Your task to perform on an android device: Add "macbook pro" to the cart on newegg, then select checkout. Image 0: 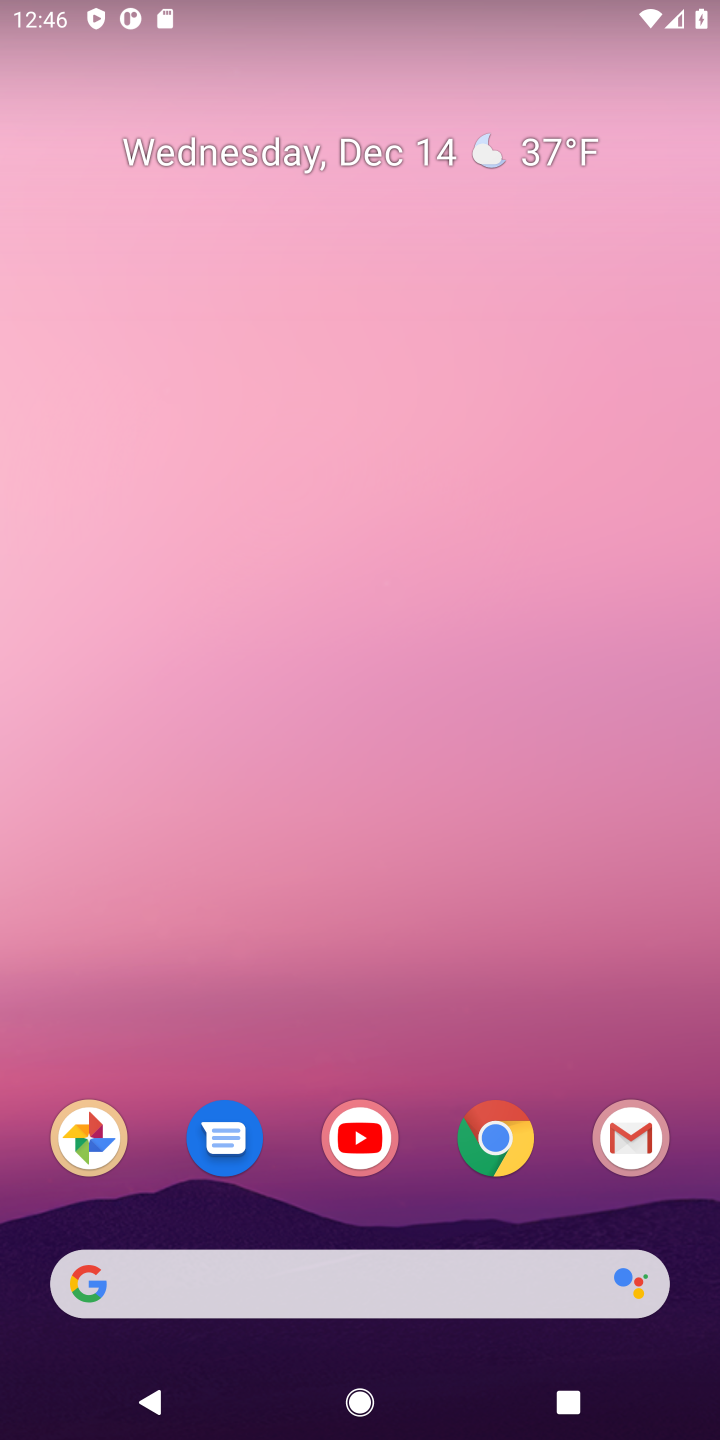
Step 0: click (494, 1139)
Your task to perform on an android device: Add "macbook pro" to the cart on newegg, then select checkout. Image 1: 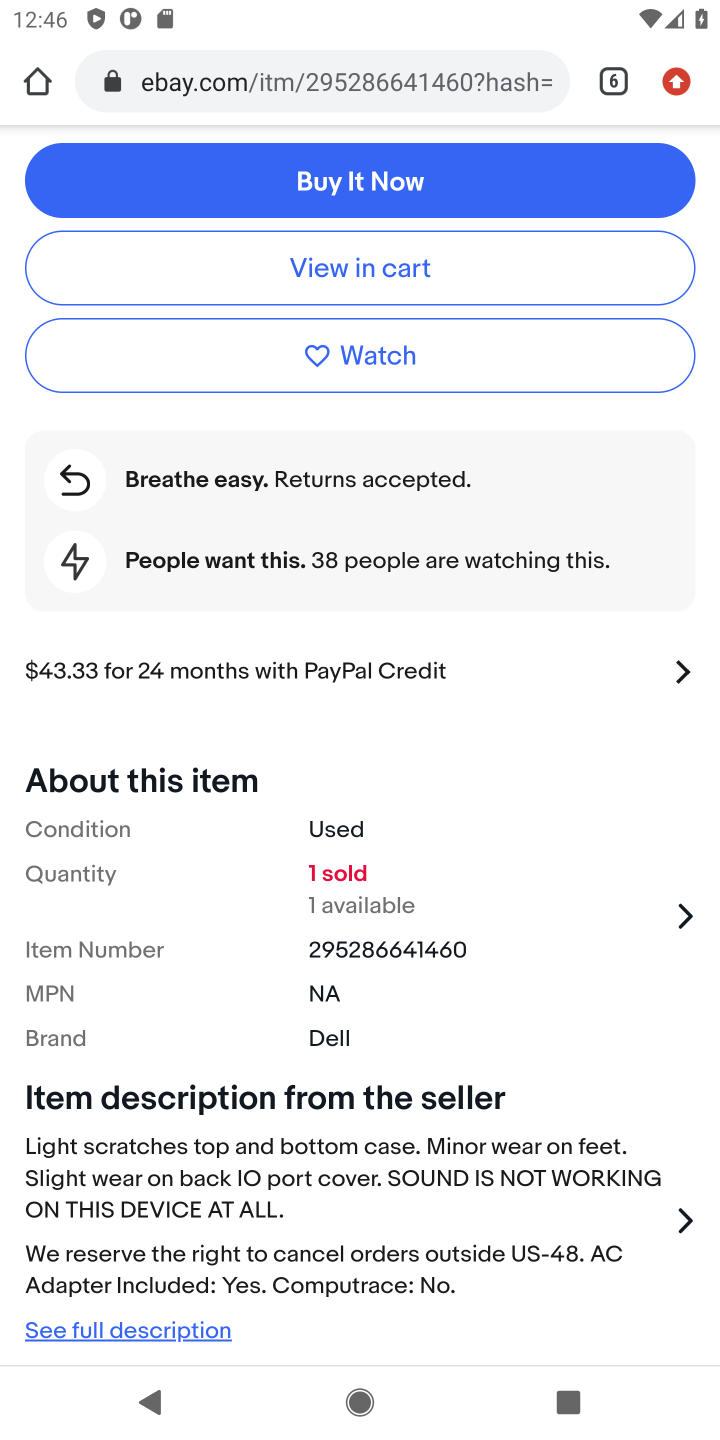
Step 1: click (611, 79)
Your task to perform on an android device: Add "macbook pro" to the cart on newegg, then select checkout. Image 2: 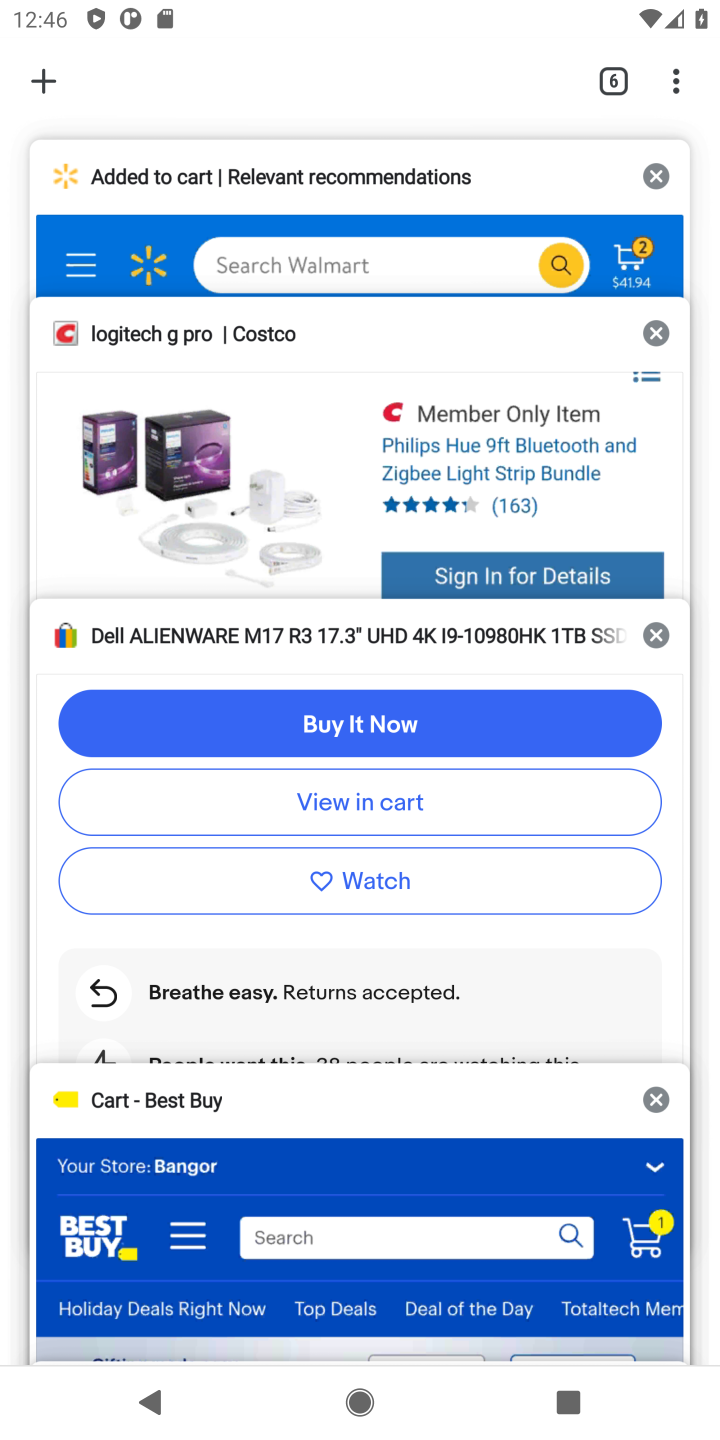
Step 2: click (42, 71)
Your task to perform on an android device: Add "macbook pro" to the cart on newegg, then select checkout. Image 3: 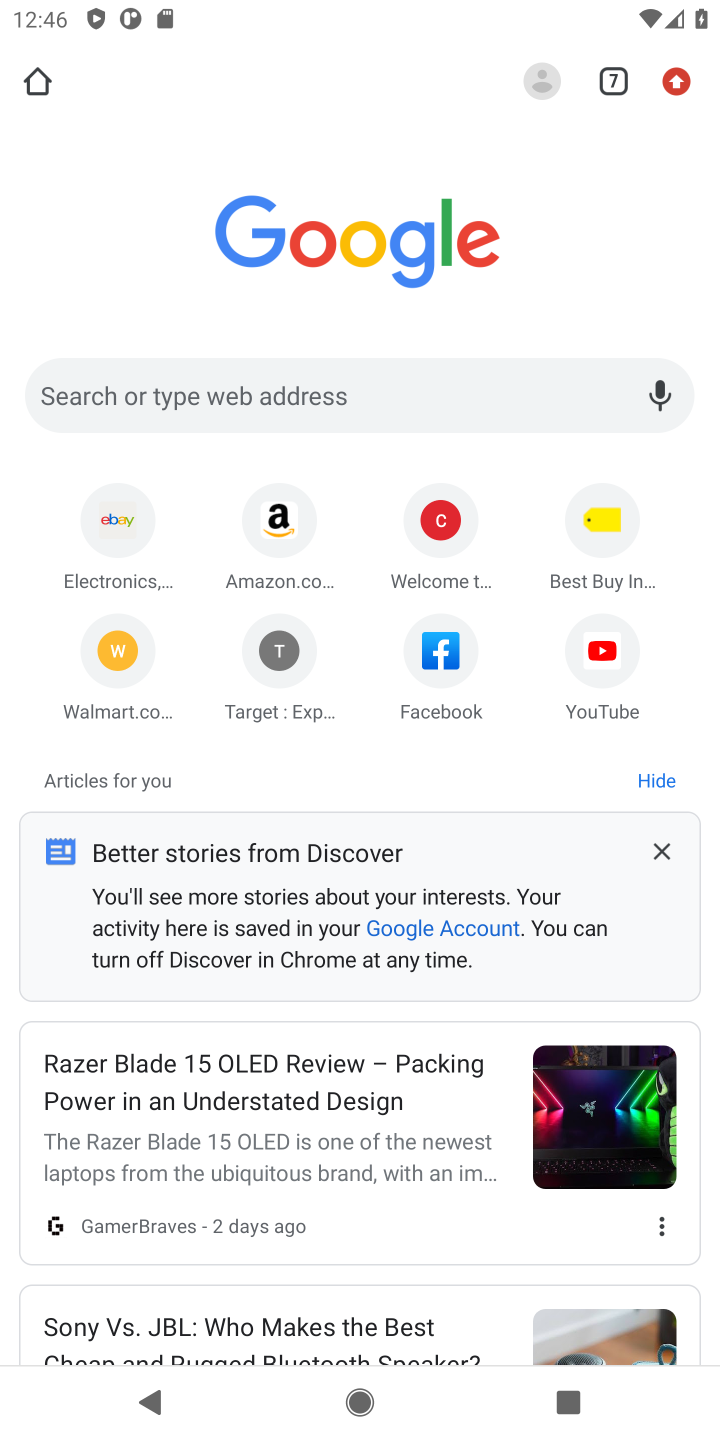
Step 3: click (320, 402)
Your task to perform on an android device: Add "macbook pro" to the cart on newegg, then select checkout. Image 4: 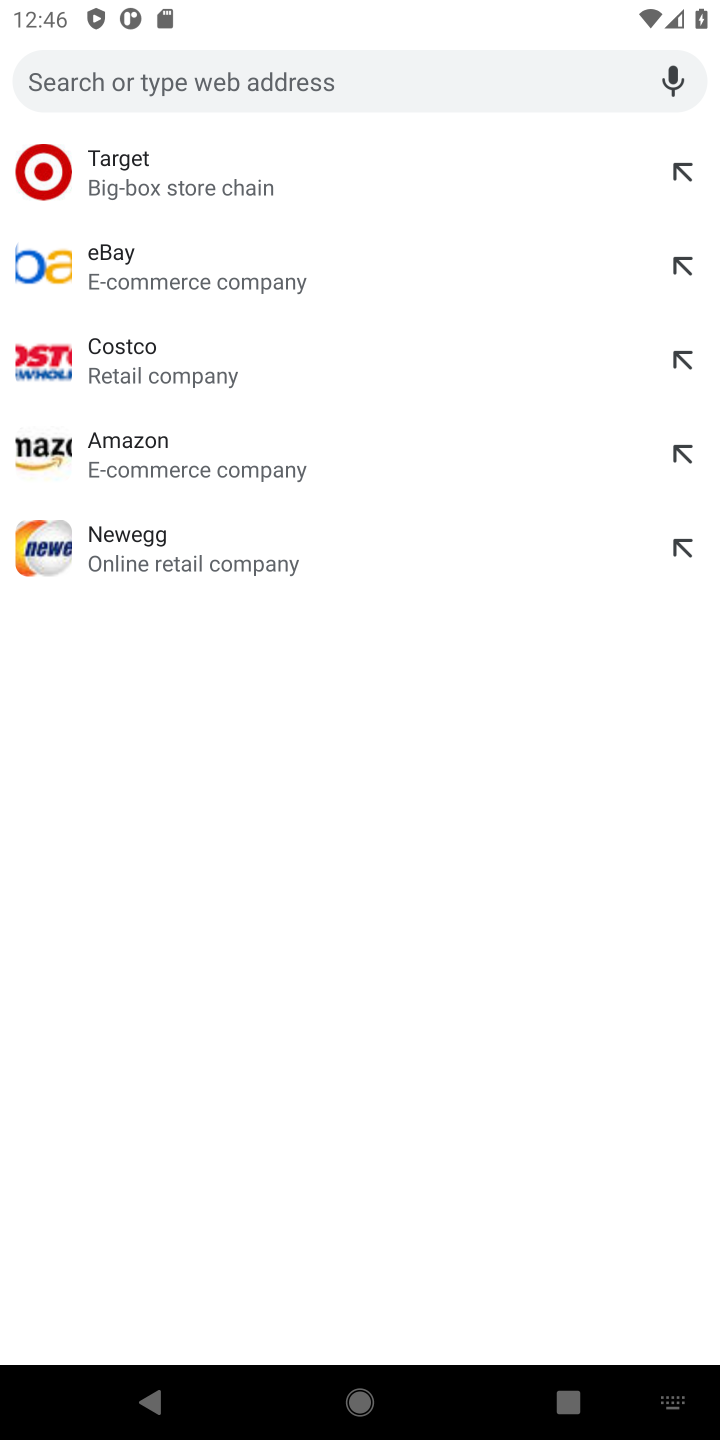
Step 4: click (144, 550)
Your task to perform on an android device: Add "macbook pro" to the cart on newegg, then select checkout. Image 5: 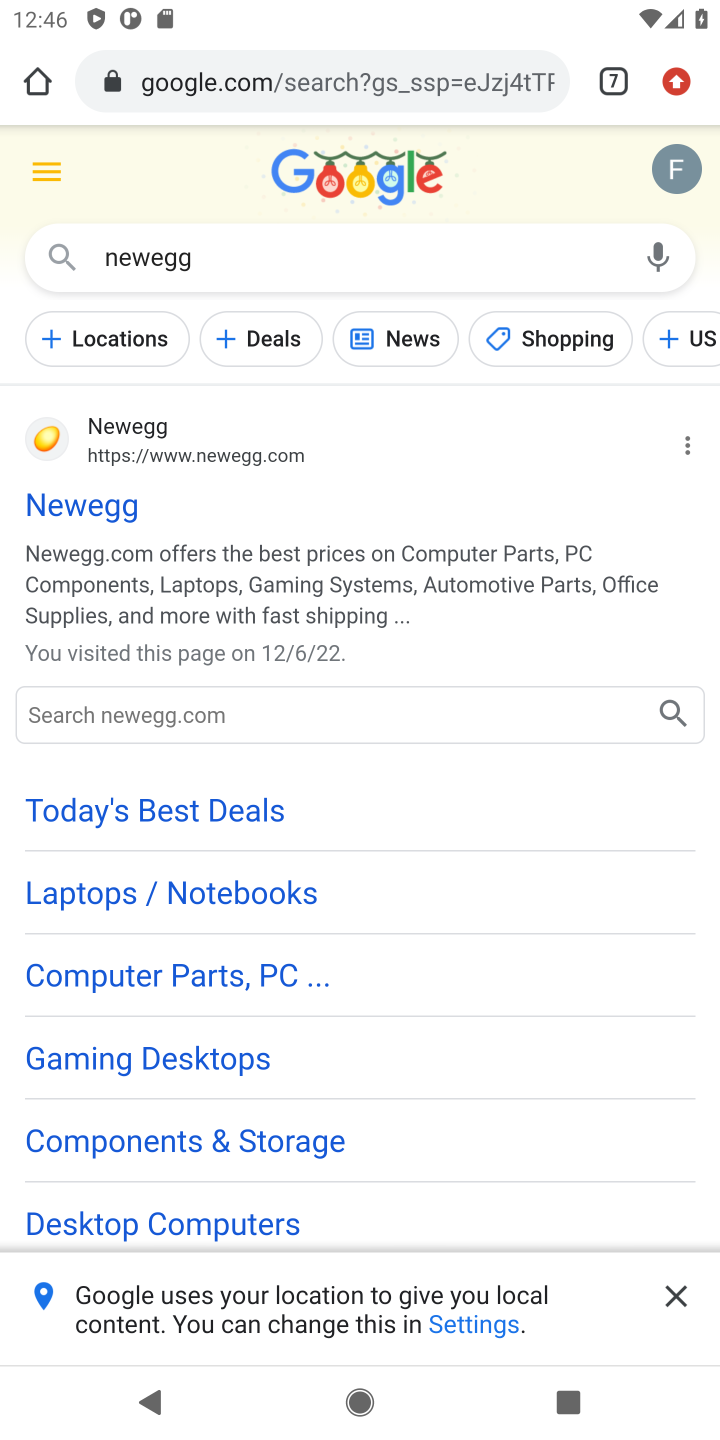
Step 5: click (148, 723)
Your task to perform on an android device: Add "macbook pro" to the cart on newegg, then select checkout. Image 6: 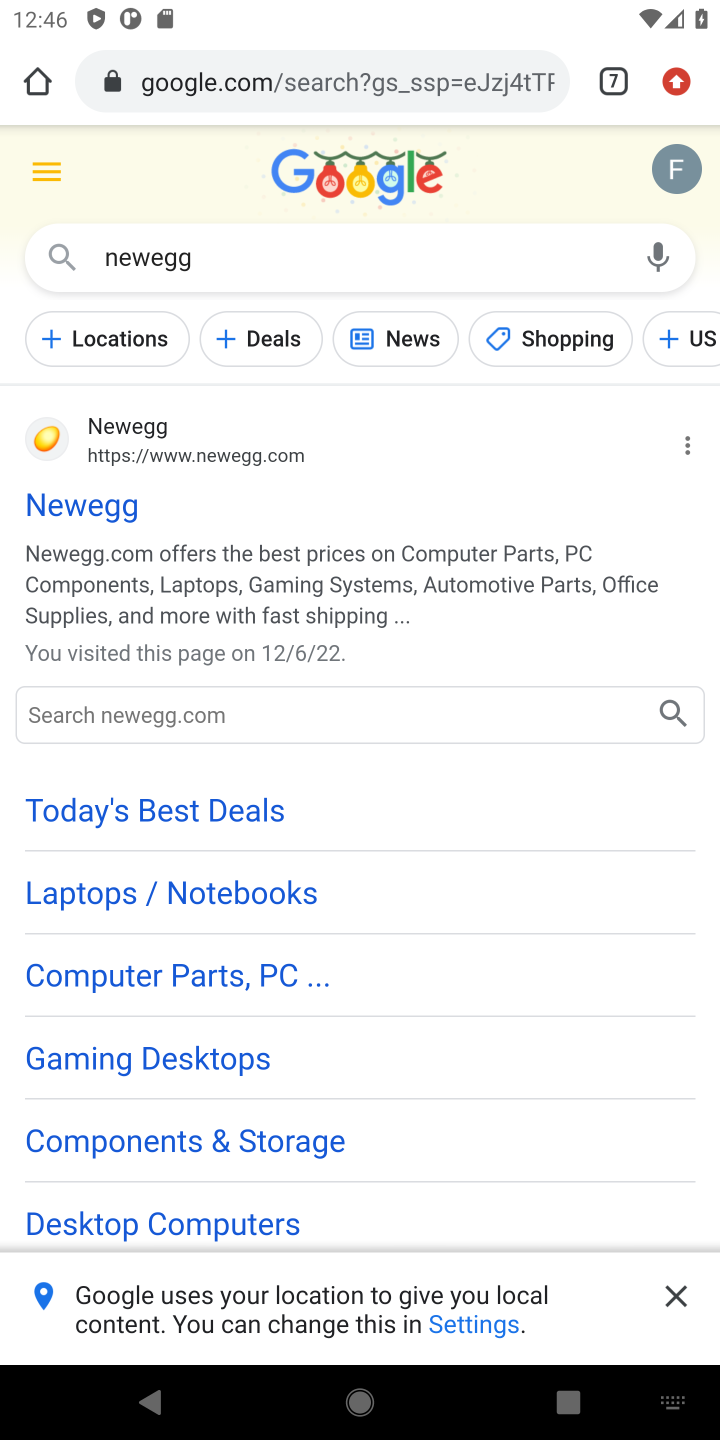
Step 6: type "macbook pro"
Your task to perform on an android device: Add "macbook pro" to the cart on newegg, then select checkout. Image 7: 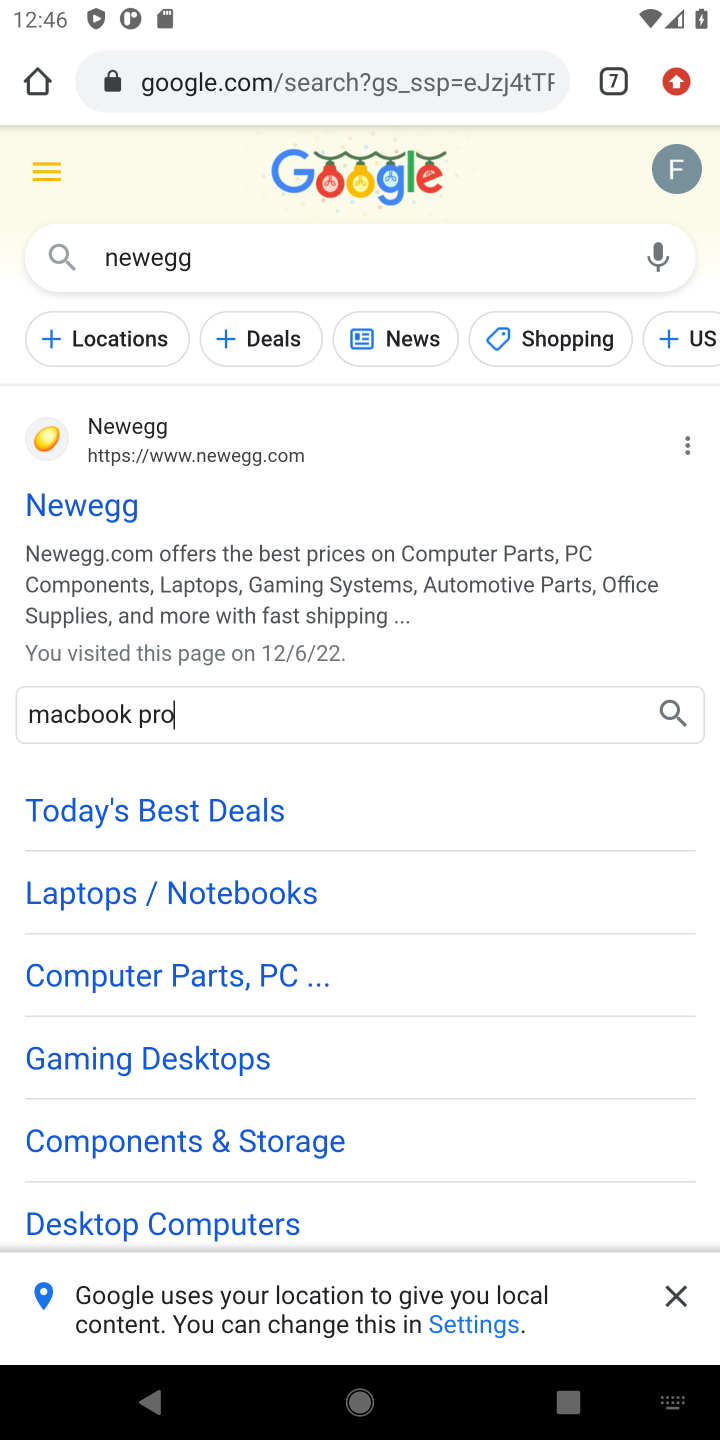
Step 7: click (669, 707)
Your task to perform on an android device: Add "macbook pro" to the cart on newegg, then select checkout. Image 8: 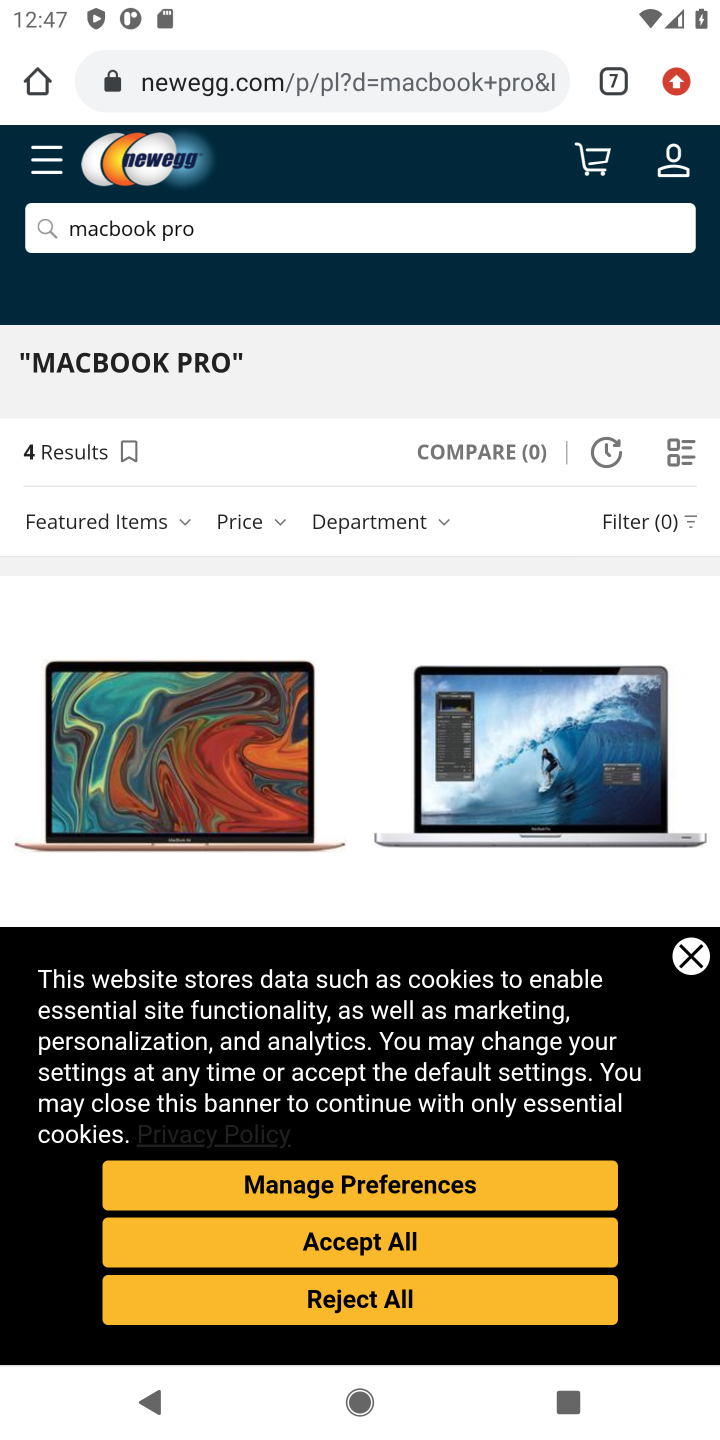
Step 8: click (693, 963)
Your task to perform on an android device: Add "macbook pro" to the cart on newegg, then select checkout. Image 9: 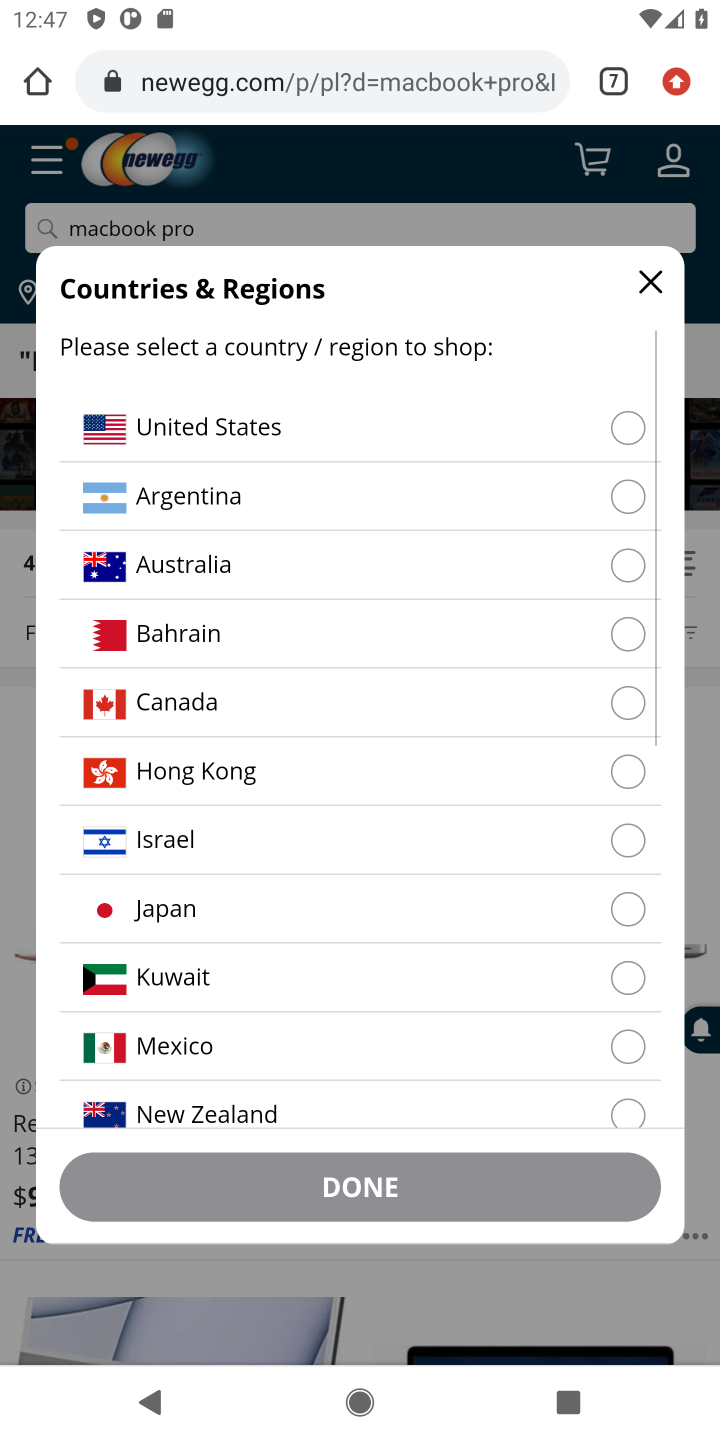
Step 9: click (632, 437)
Your task to perform on an android device: Add "macbook pro" to the cart on newegg, then select checkout. Image 10: 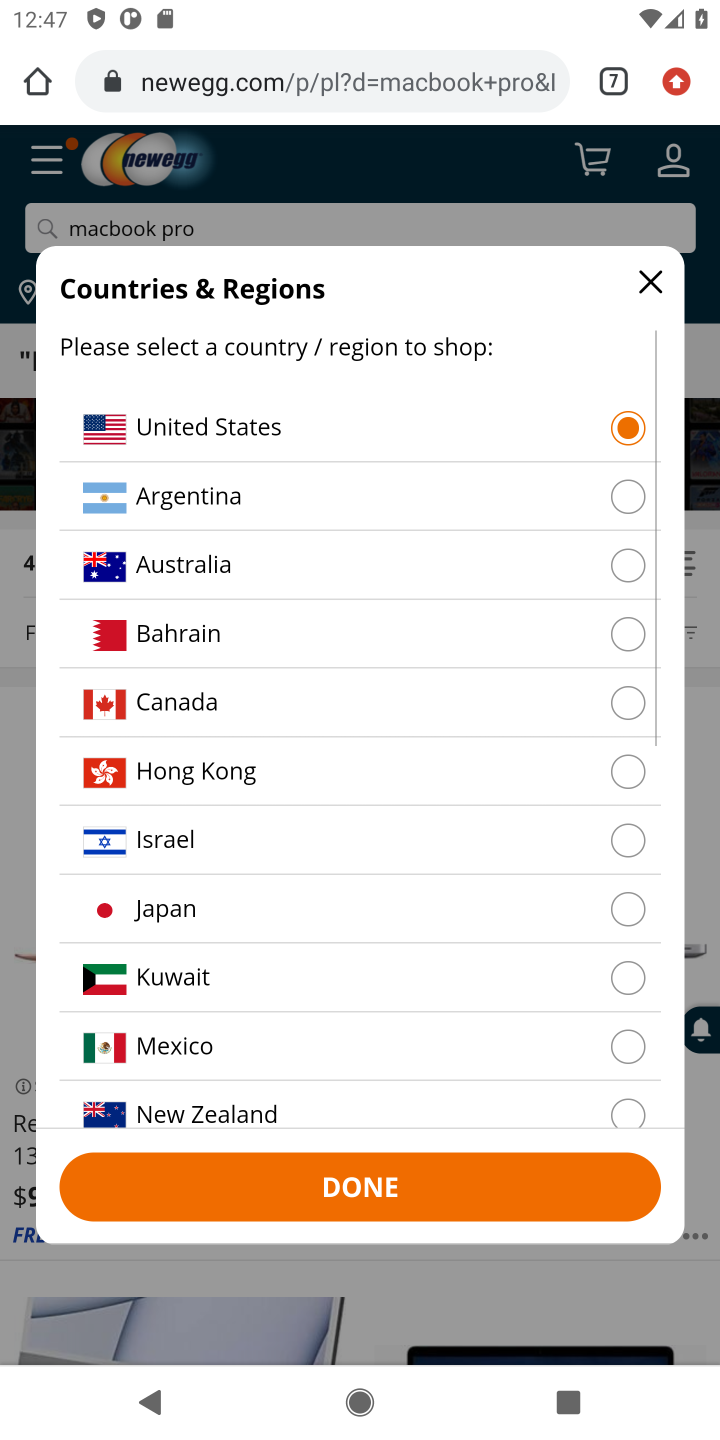
Step 10: click (438, 1205)
Your task to perform on an android device: Add "macbook pro" to the cart on newegg, then select checkout. Image 11: 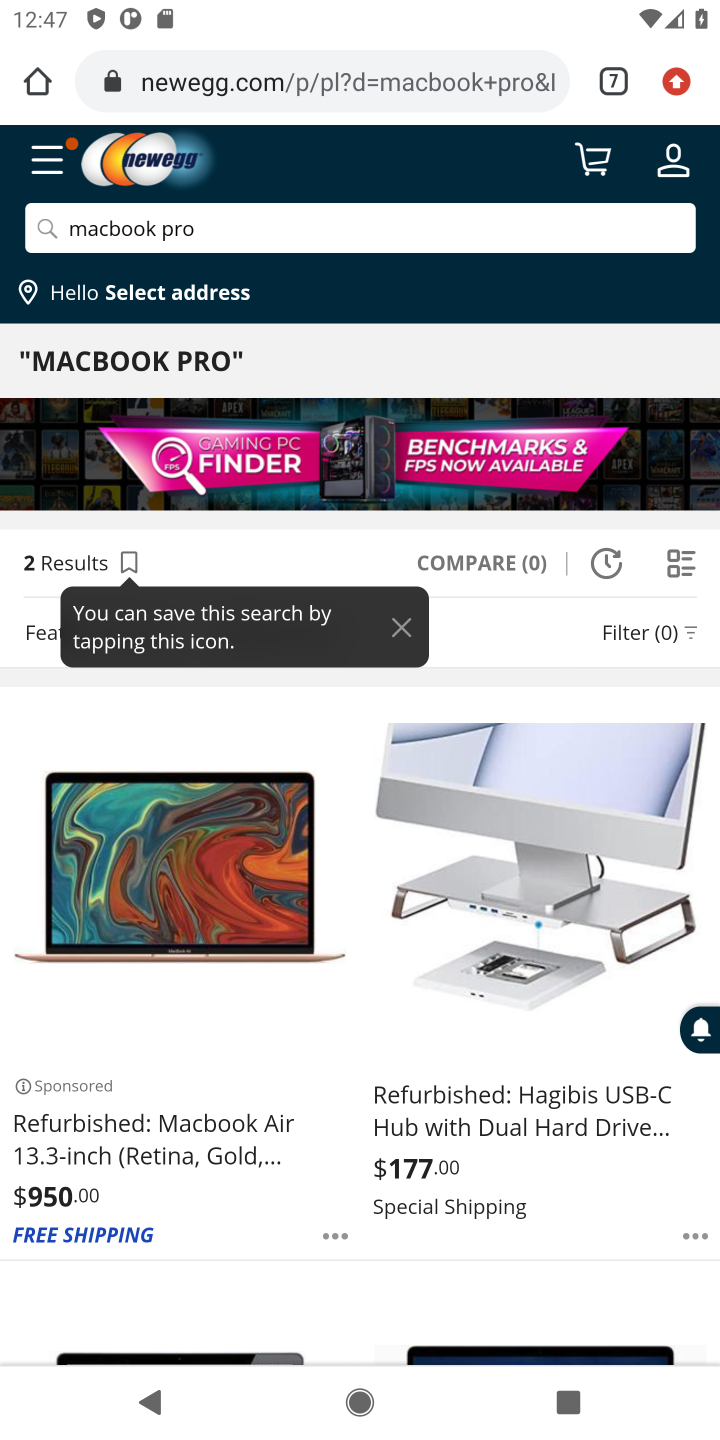
Step 11: click (403, 630)
Your task to perform on an android device: Add "macbook pro" to the cart on newegg, then select checkout. Image 12: 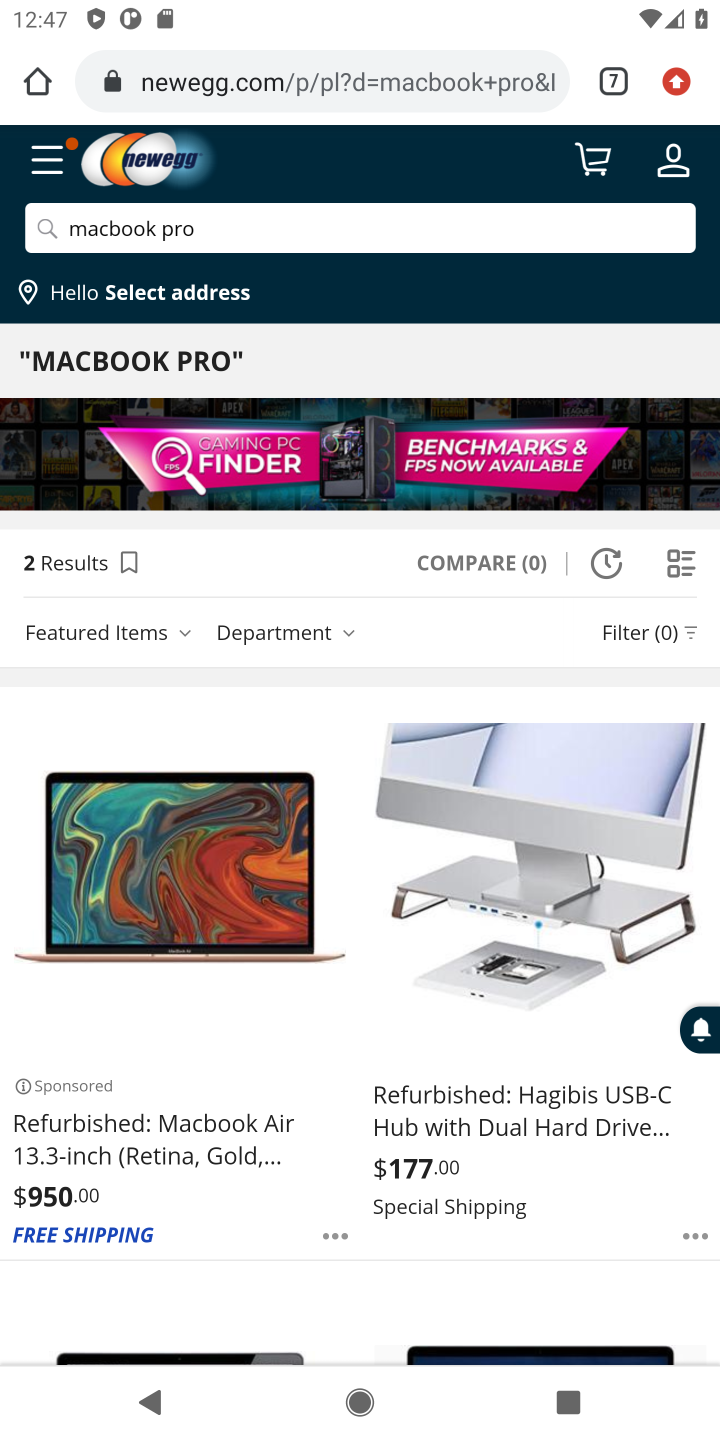
Step 12: click (133, 1148)
Your task to perform on an android device: Add "macbook pro" to the cart on newegg, then select checkout. Image 13: 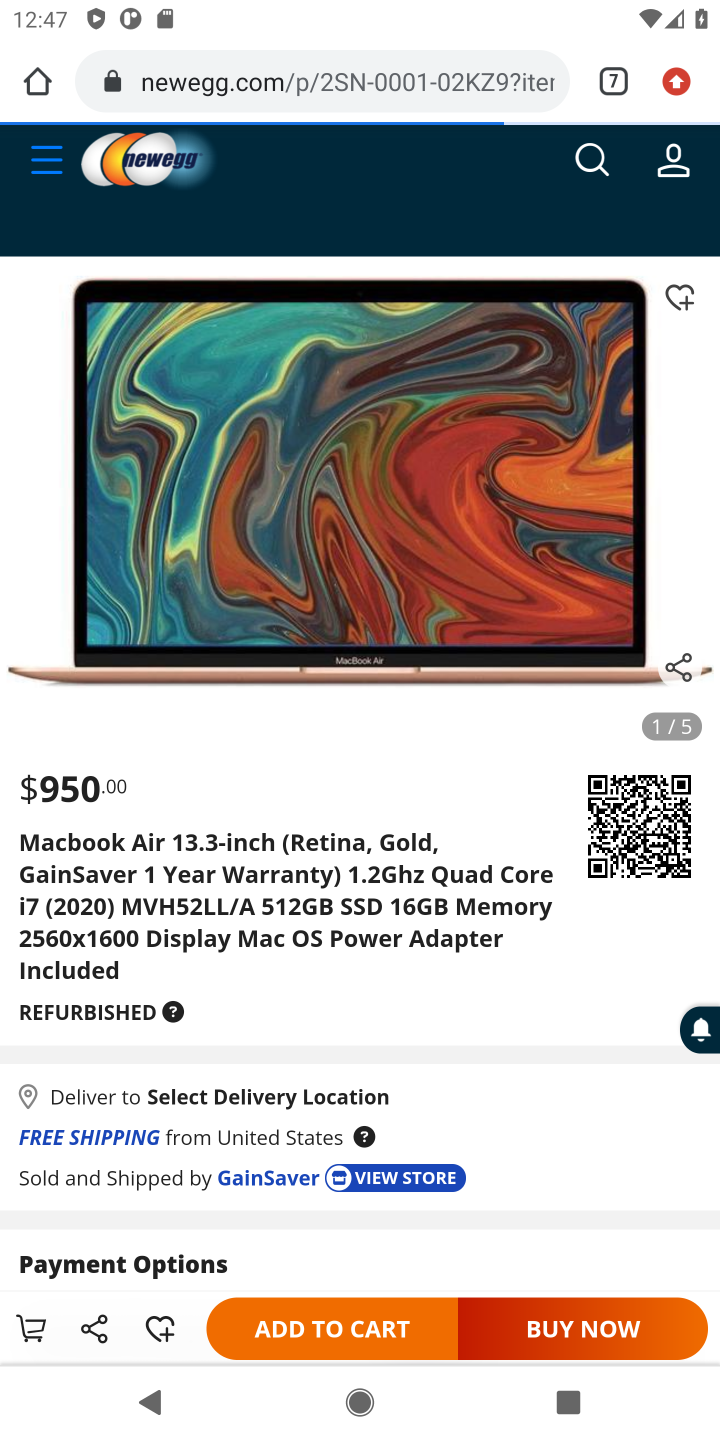
Step 13: click (344, 1325)
Your task to perform on an android device: Add "macbook pro" to the cart on newegg, then select checkout. Image 14: 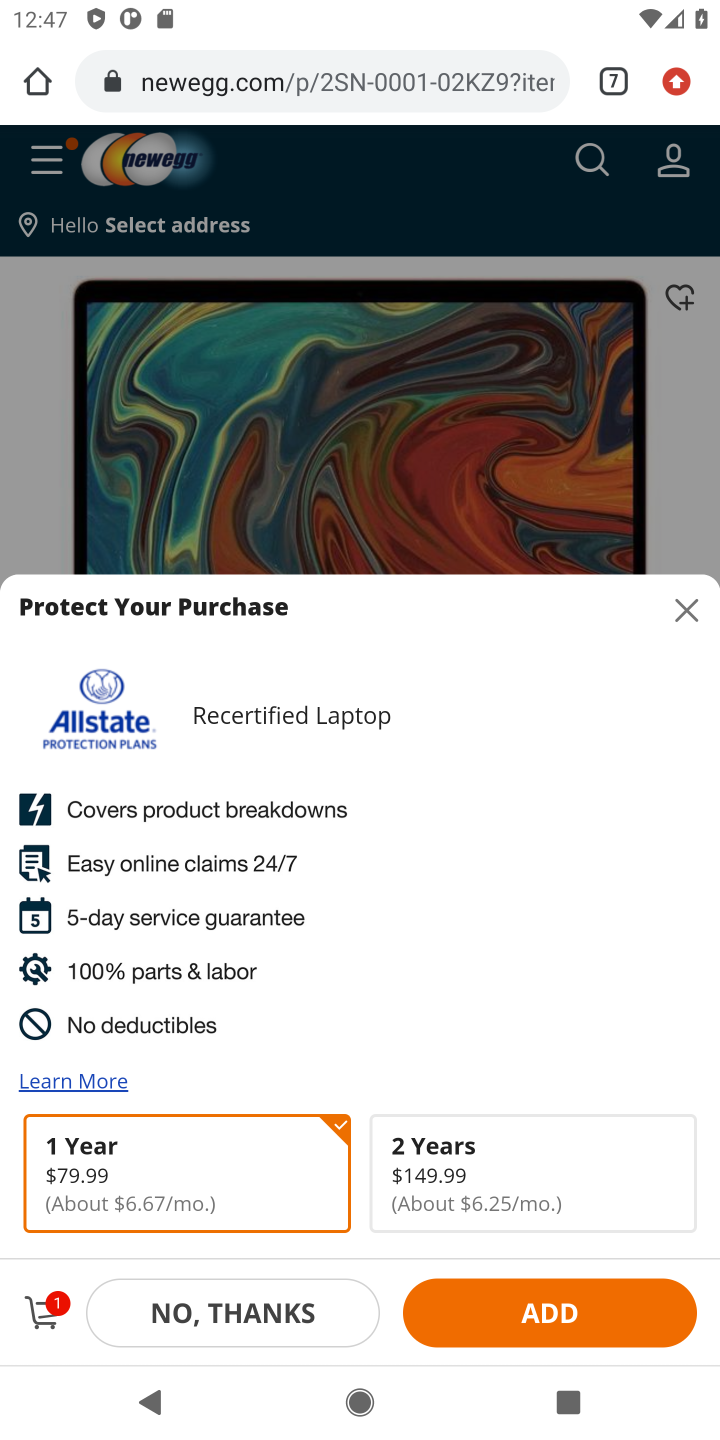
Step 14: click (244, 1321)
Your task to perform on an android device: Add "macbook pro" to the cart on newegg, then select checkout. Image 15: 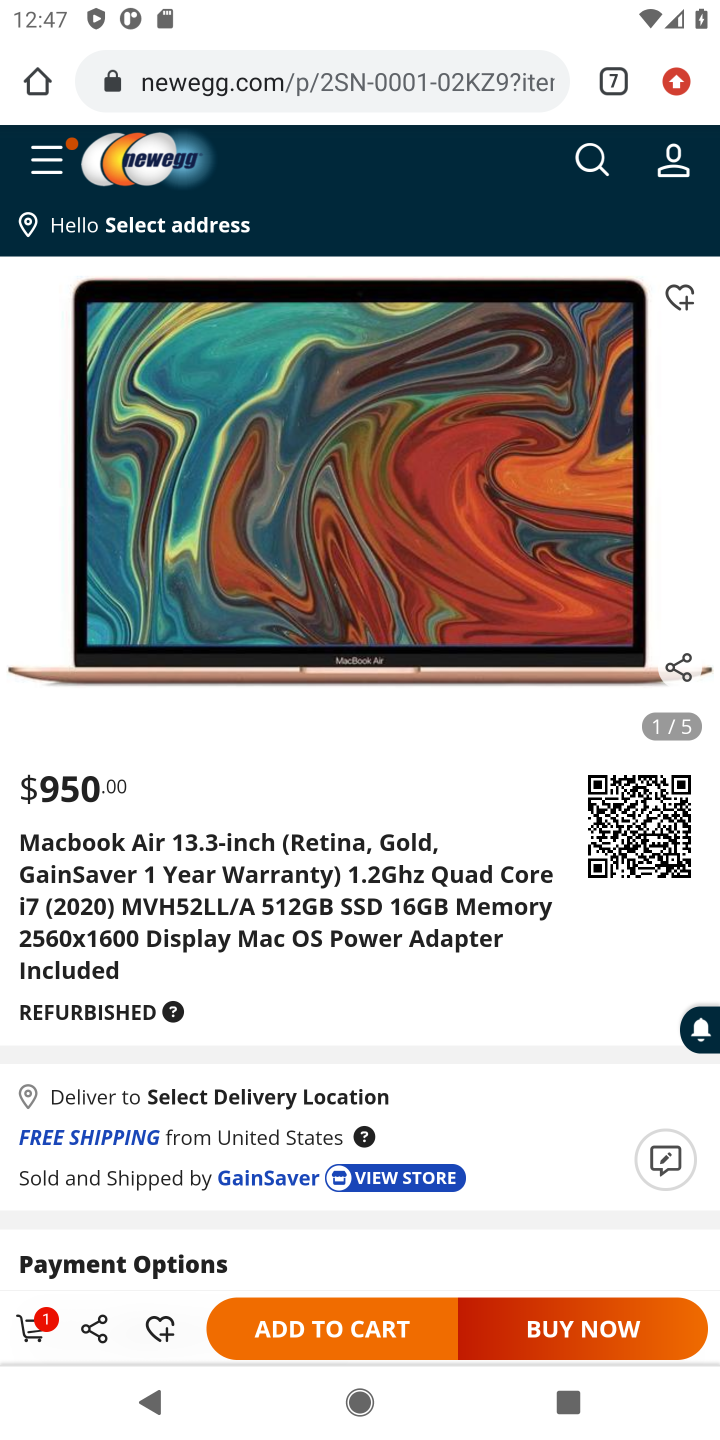
Step 15: task complete